Your task to perform on an android device: Open the Play Movies app and select the watchlist tab. Image 0: 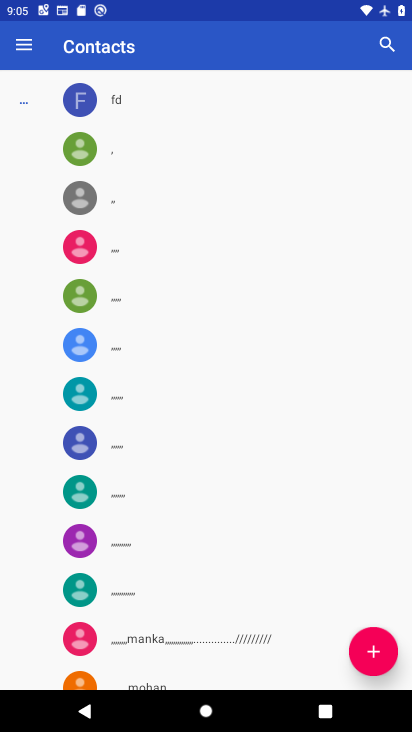
Step 0: press home button
Your task to perform on an android device: Open the Play Movies app and select the watchlist tab. Image 1: 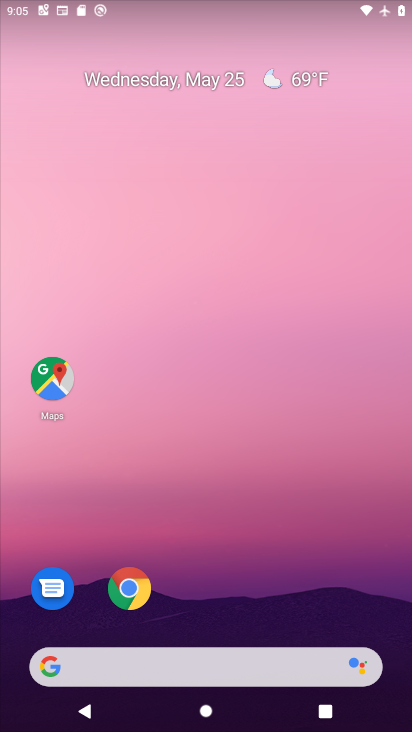
Step 1: drag from (378, 626) to (372, 190)
Your task to perform on an android device: Open the Play Movies app and select the watchlist tab. Image 2: 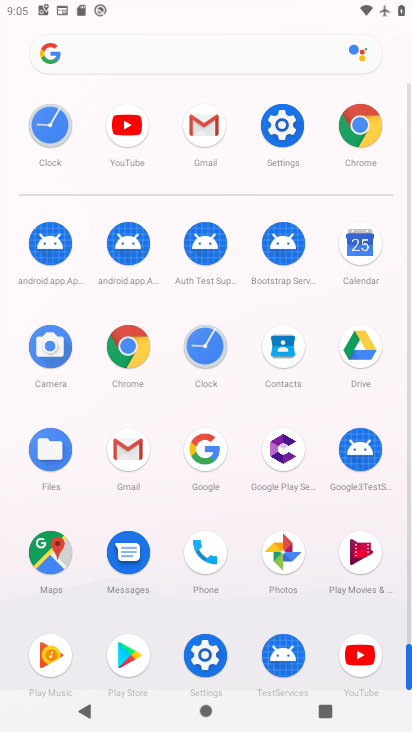
Step 2: click (379, 559)
Your task to perform on an android device: Open the Play Movies app and select the watchlist tab. Image 3: 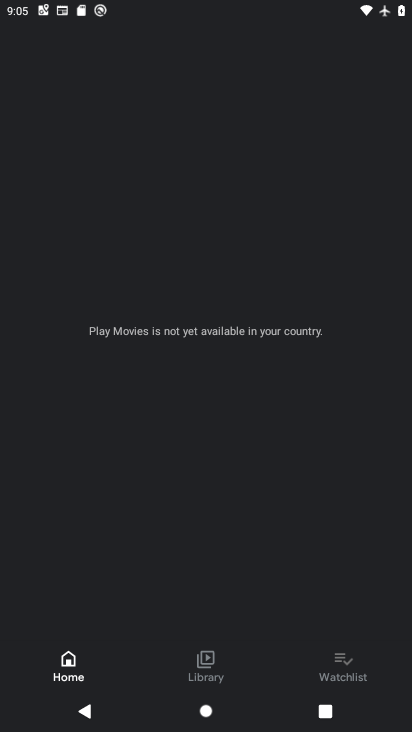
Step 3: click (350, 654)
Your task to perform on an android device: Open the Play Movies app and select the watchlist tab. Image 4: 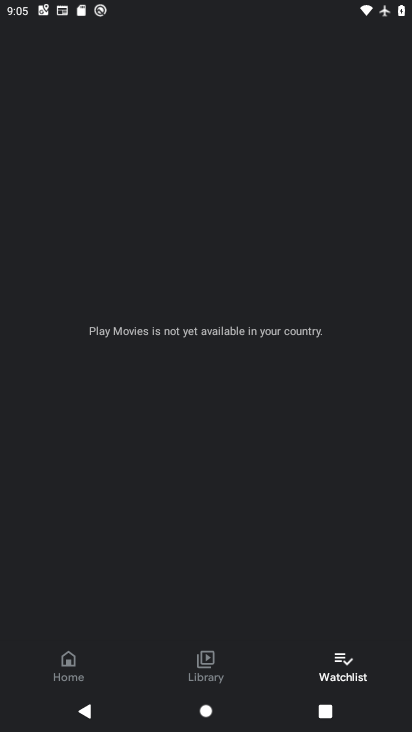
Step 4: task complete